Your task to perform on an android device: Open Google Chrome and click the shortcut for Amazon.com Image 0: 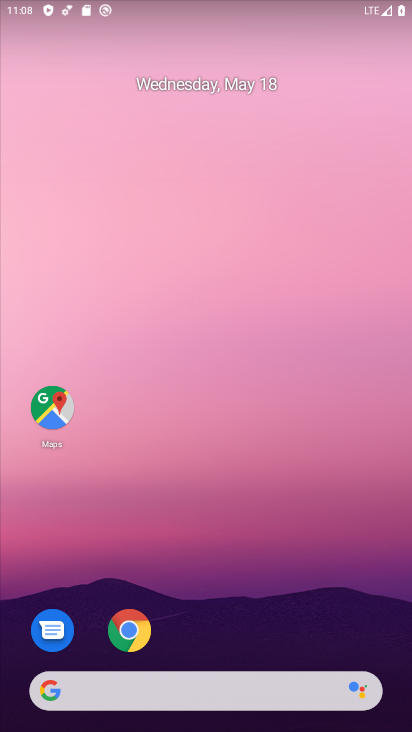
Step 0: click (116, 628)
Your task to perform on an android device: Open Google Chrome and click the shortcut for Amazon.com Image 1: 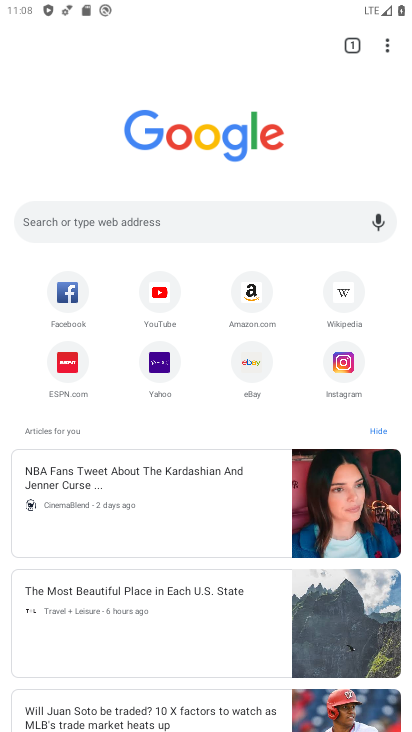
Step 1: click (260, 284)
Your task to perform on an android device: Open Google Chrome and click the shortcut for Amazon.com Image 2: 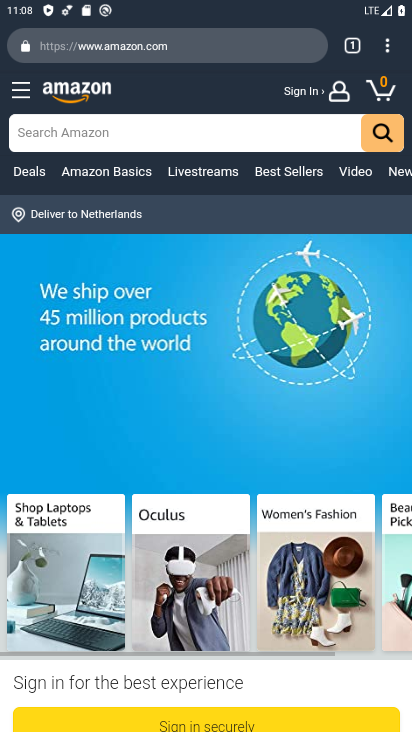
Step 2: task complete